Your task to perform on an android device: turn off smart reply in the gmail app Image 0: 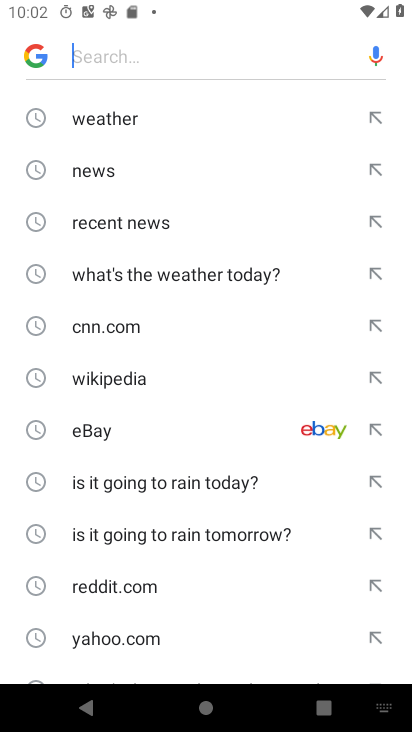
Step 0: press home button
Your task to perform on an android device: turn off smart reply in the gmail app Image 1: 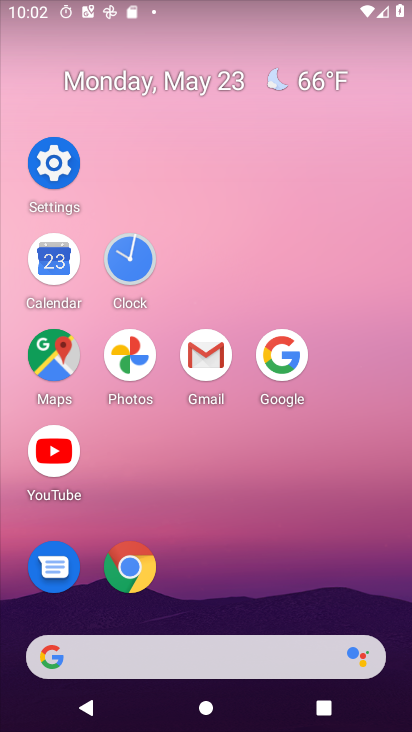
Step 1: click (211, 359)
Your task to perform on an android device: turn off smart reply in the gmail app Image 2: 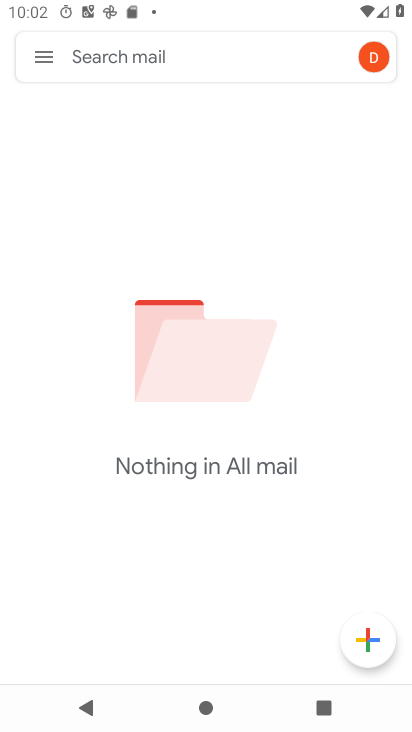
Step 2: click (33, 65)
Your task to perform on an android device: turn off smart reply in the gmail app Image 3: 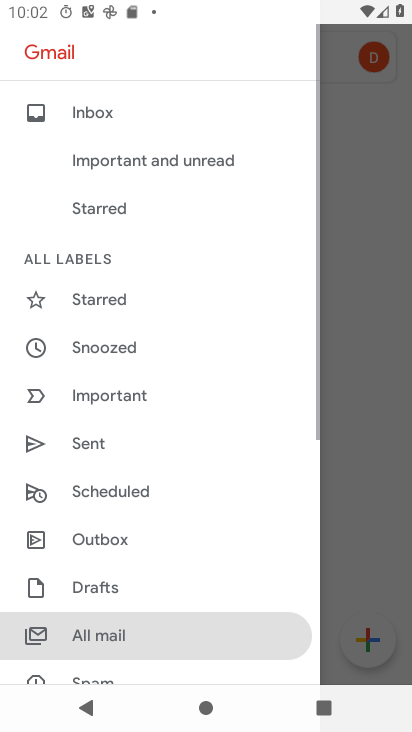
Step 3: drag from (145, 498) to (180, 177)
Your task to perform on an android device: turn off smart reply in the gmail app Image 4: 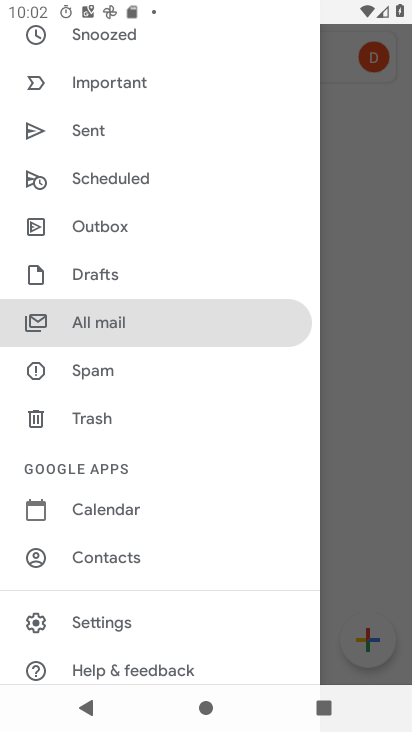
Step 4: click (115, 622)
Your task to perform on an android device: turn off smart reply in the gmail app Image 5: 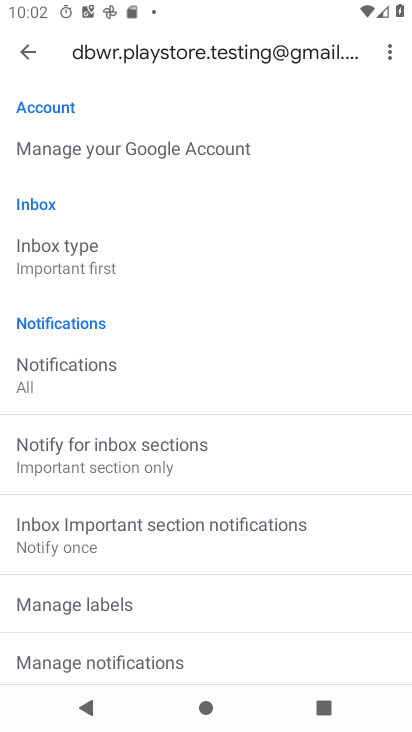
Step 5: drag from (221, 558) to (250, 118)
Your task to perform on an android device: turn off smart reply in the gmail app Image 6: 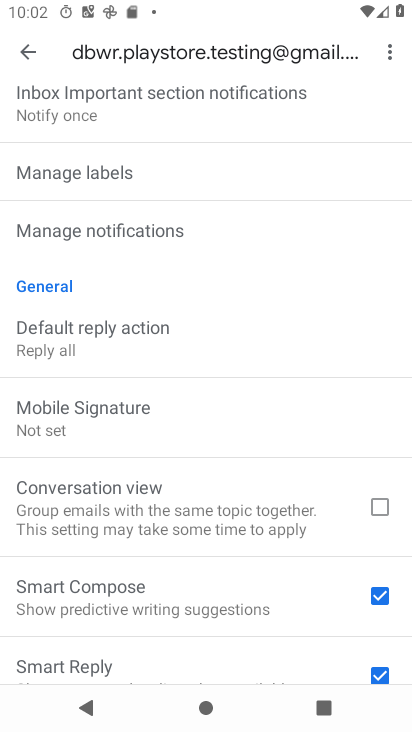
Step 6: drag from (228, 621) to (203, 188)
Your task to perform on an android device: turn off smart reply in the gmail app Image 7: 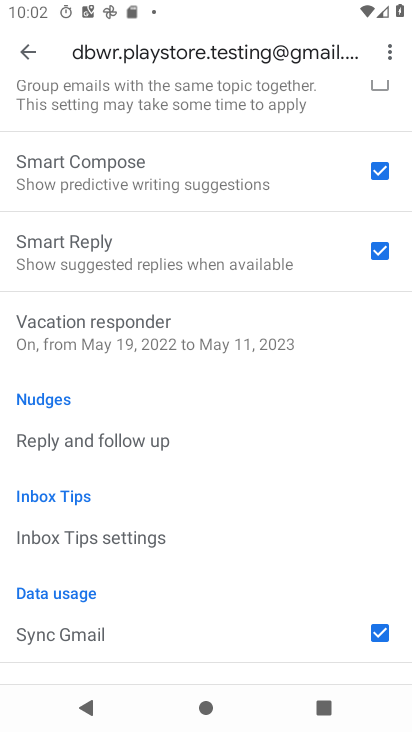
Step 7: click (364, 251)
Your task to perform on an android device: turn off smart reply in the gmail app Image 8: 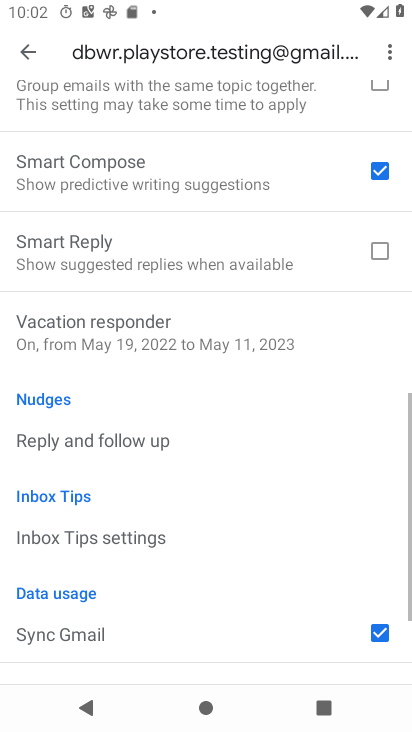
Step 8: task complete